Your task to perform on an android device: find snoozed emails in the gmail app Image 0: 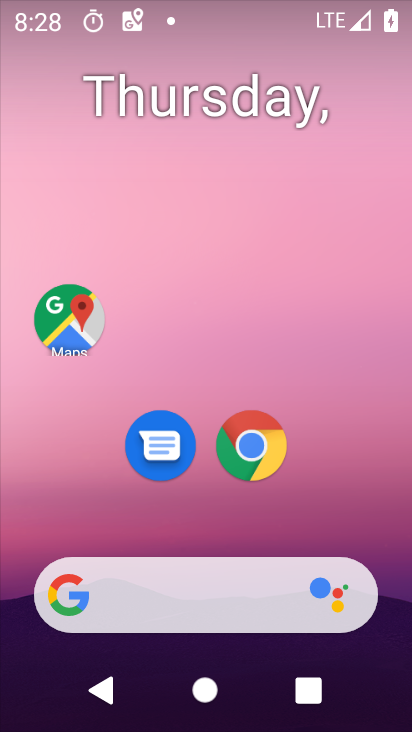
Step 0: drag from (202, 521) to (192, 70)
Your task to perform on an android device: find snoozed emails in the gmail app Image 1: 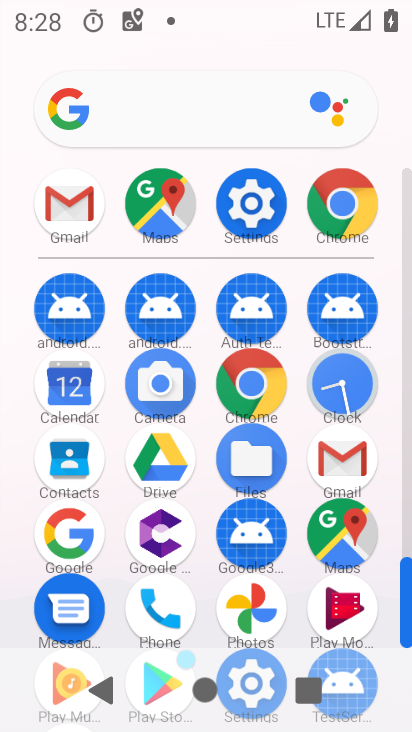
Step 1: drag from (198, 636) to (236, 254)
Your task to perform on an android device: find snoozed emails in the gmail app Image 2: 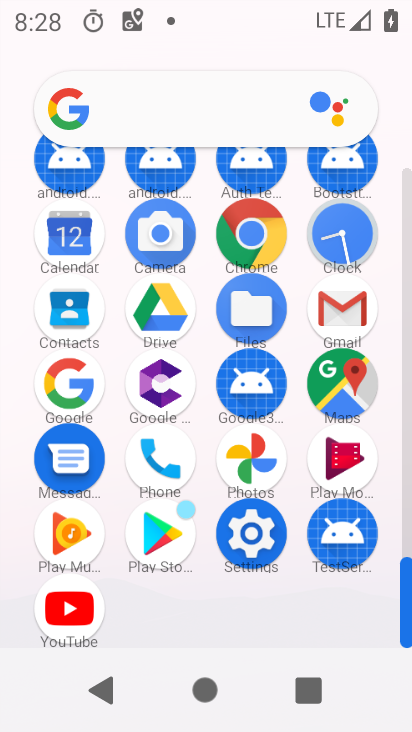
Step 2: click (351, 301)
Your task to perform on an android device: find snoozed emails in the gmail app Image 3: 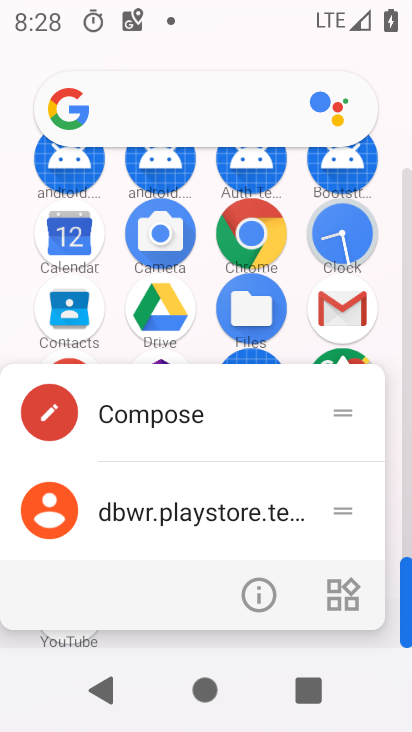
Step 3: click (252, 587)
Your task to perform on an android device: find snoozed emails in the gmail app Image 4: 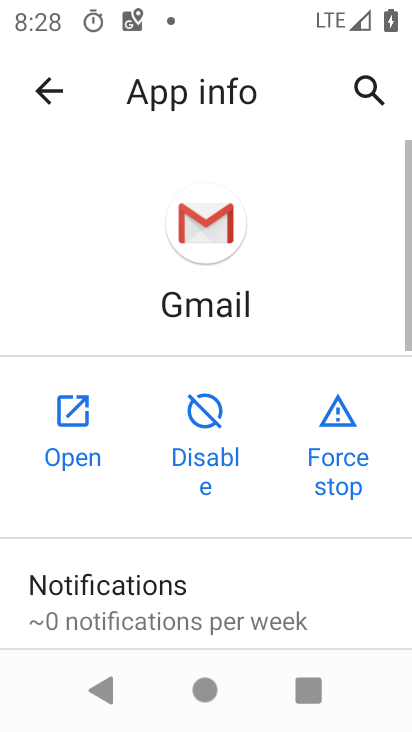
Step 4: click (63, 424)
Your task to perform on an android device: find snoozed emails in the gmail app Image 5: 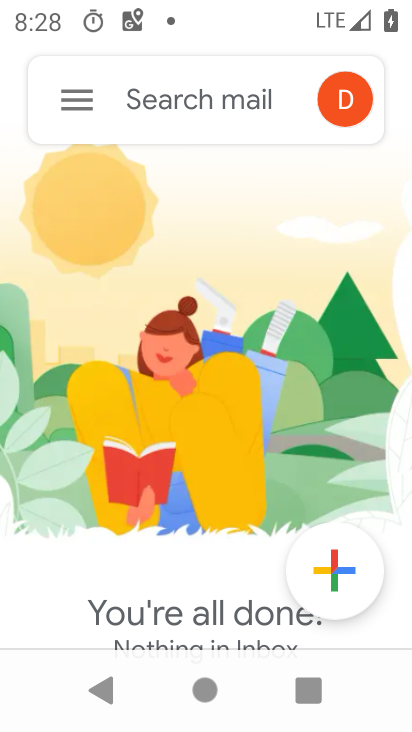
Step 5: drag from (189, 570) to (218, 379)
Your task to perform on an android device: find snoozed emails in the gmail app Image 6: 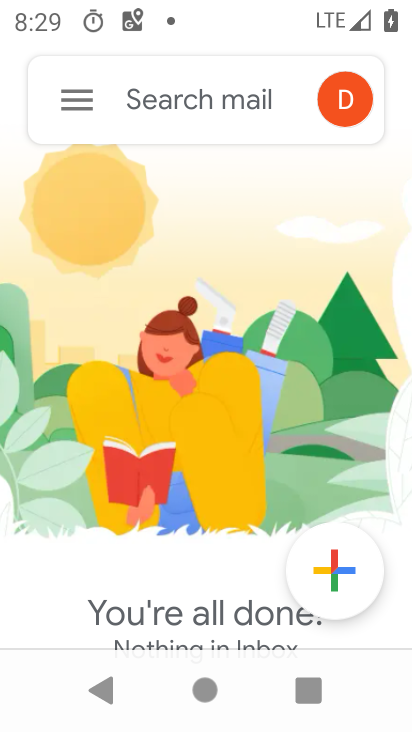
Step 6: drag from (118, 567) to (153, 374)
Your task to perform on an android device: find snoozed emails in the gmail app Image 7: 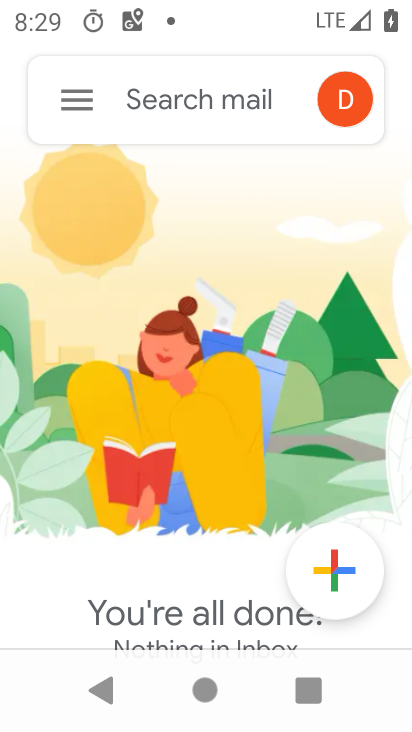
Step 7: drag from (215, 246) to (261, 688)
Your task to perform on an android device: find snoozed emails in the gmail app Image 8: 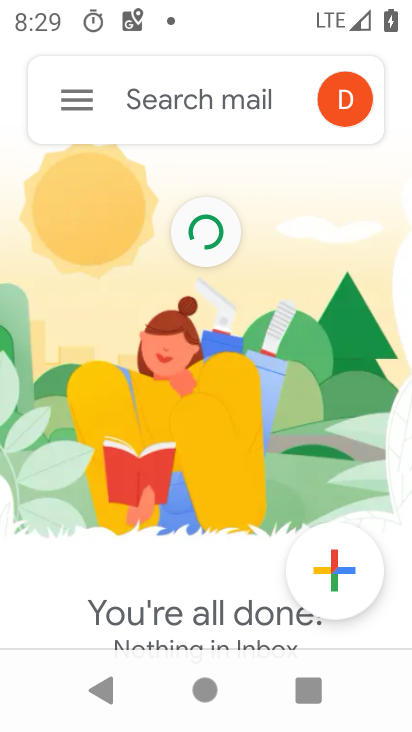
Step 8: drag from (211, 589) to (241, 395)
Your task to perform on an android device: find snoozed emails in the gmail app Image 9: 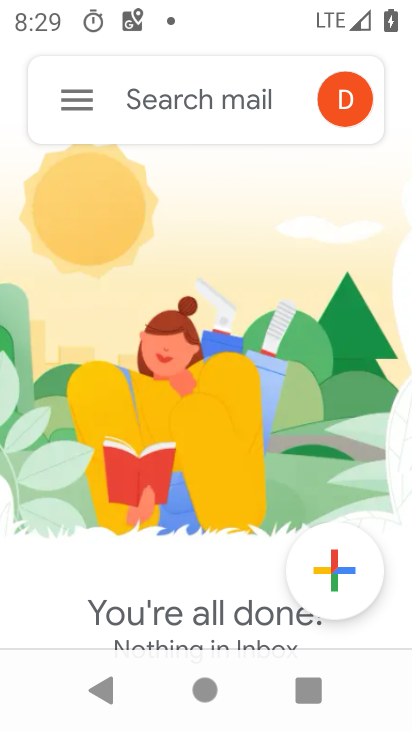
Step 9: click (99, 100)
Your task to perform on an android device: find snoozed emails in the gmail app Image 10: 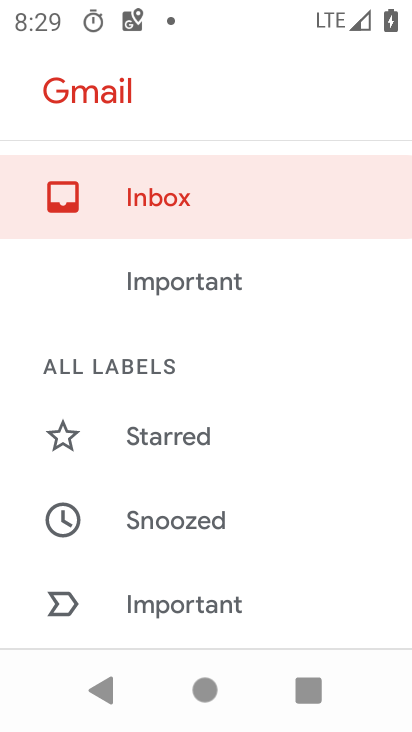
Step 10: drag from (229, 513) to (244, 243)
Your task to perform on an android device: find snoozed emails in the gmail app Image 11: 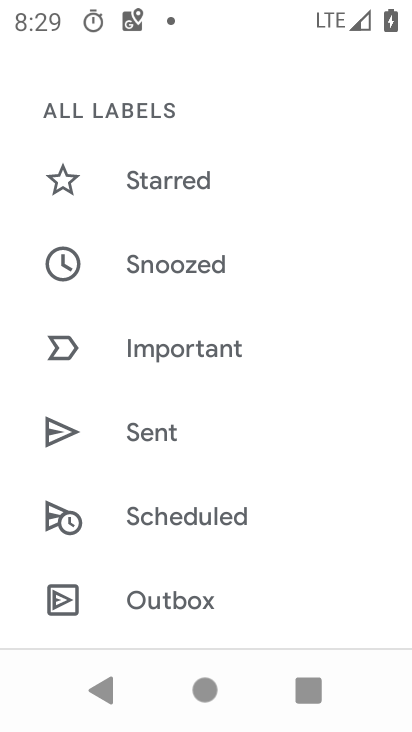
Step 11: click (220, 266)
Your task to perform on an android device: find snoozed emails in the gmail app Image 12: 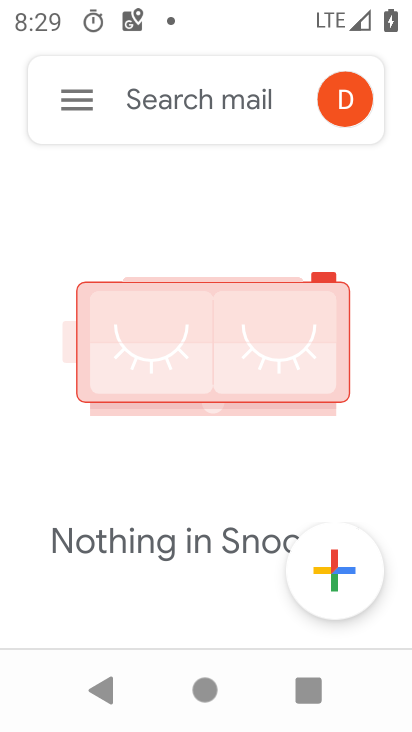
Step 12: task complete